Your task to perform on an android device: toggle improve location accuracy Image 0: 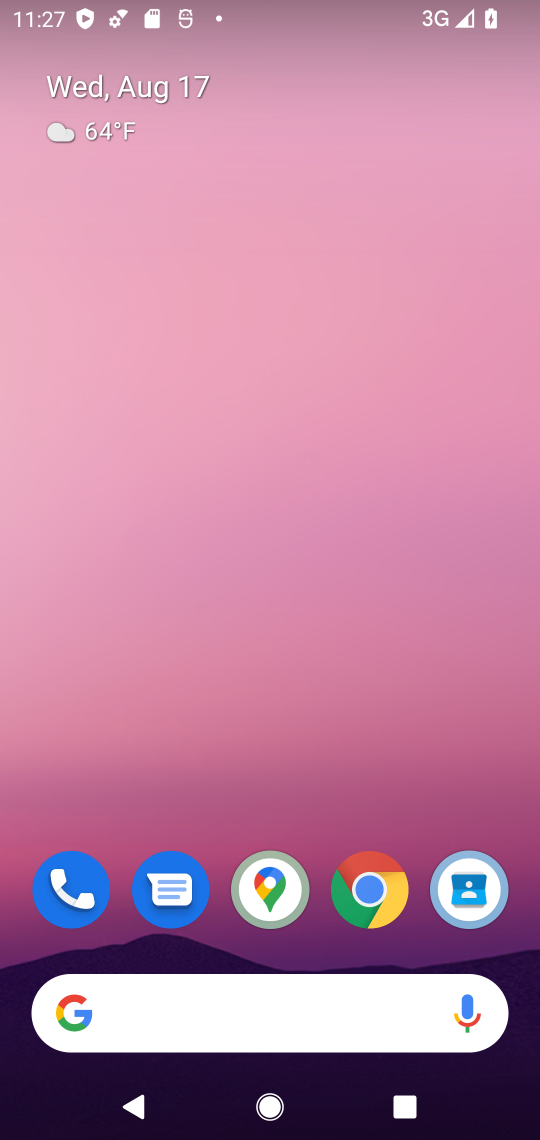
Step 0: drag from (272, 765) to (331, 0)
Your task to perform on an android device: toggle improve location accuracy Image 1: 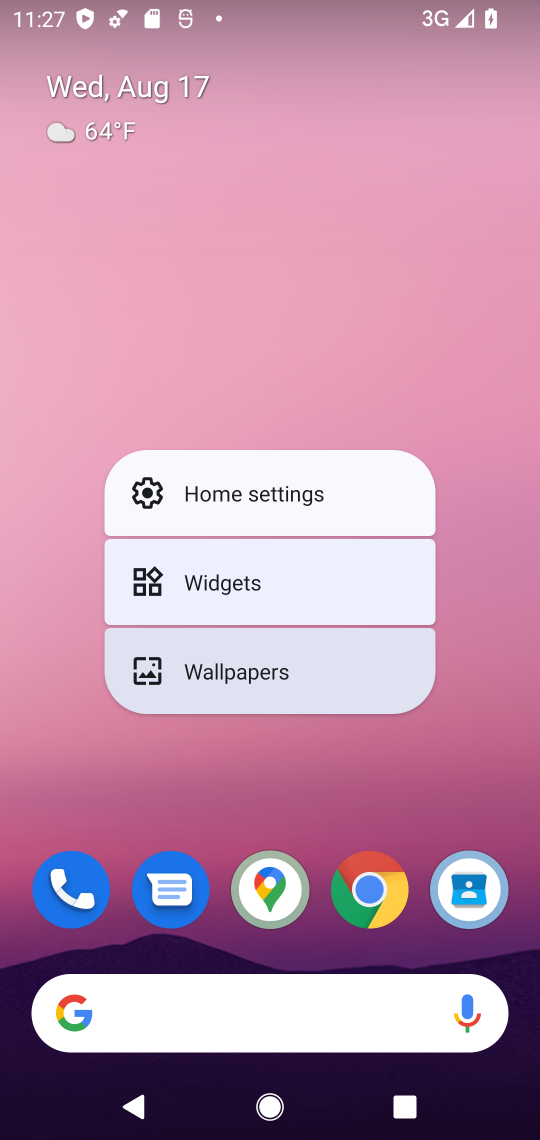
Step 1: click (395, 226)
Your task to perform on an android device: toggle improve location accuracy Image 2: 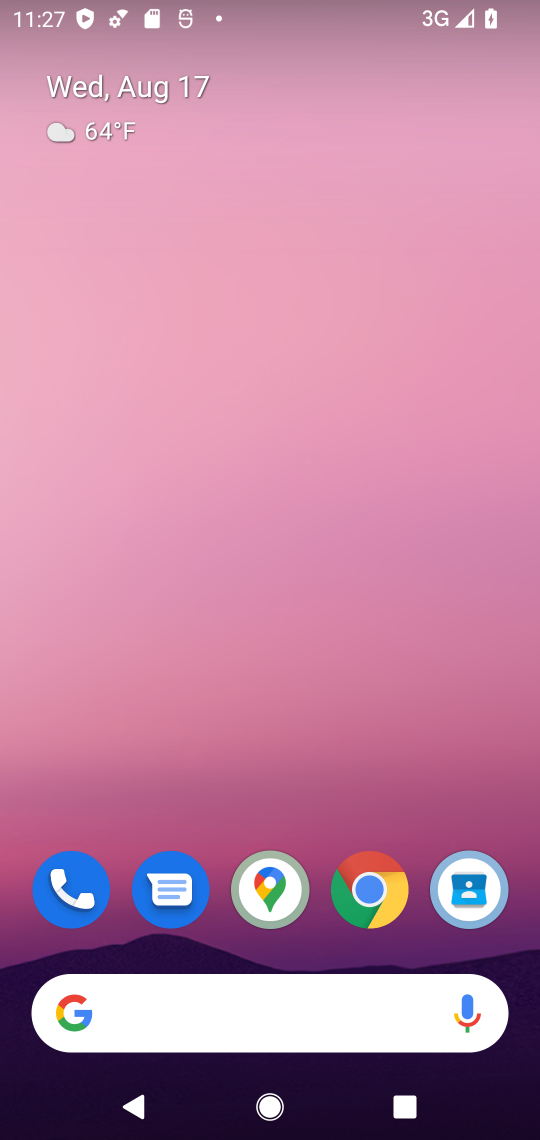
Step 2: drag from (310, 753) to (321, 13)
Your task to perform on an android device: toggle improve location accuracy Image 3: 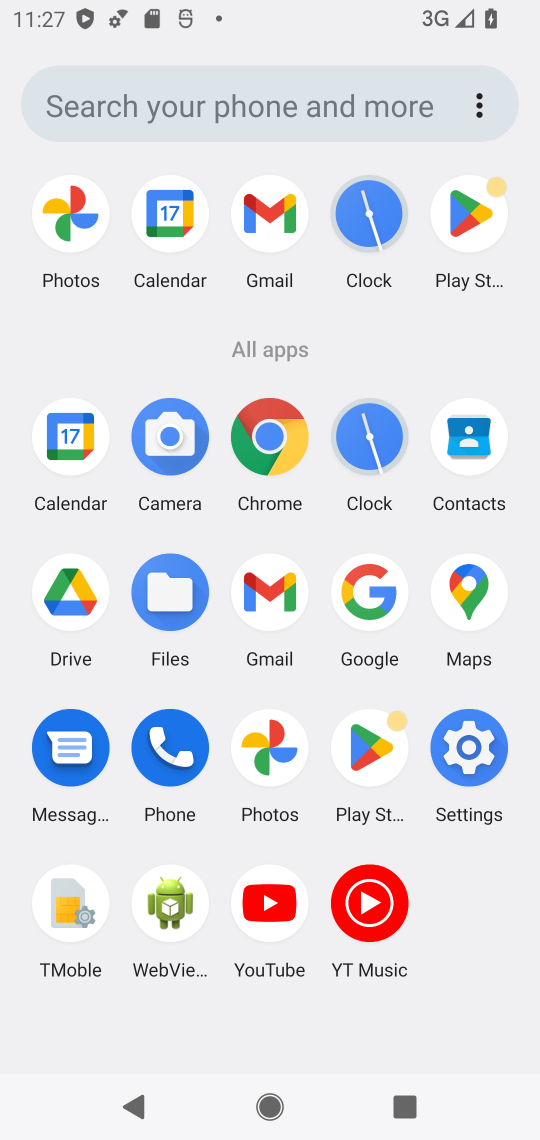
Step 3: click (475, 735)
Your task to perform on an android device: toggle improve location accuracy Image 4: 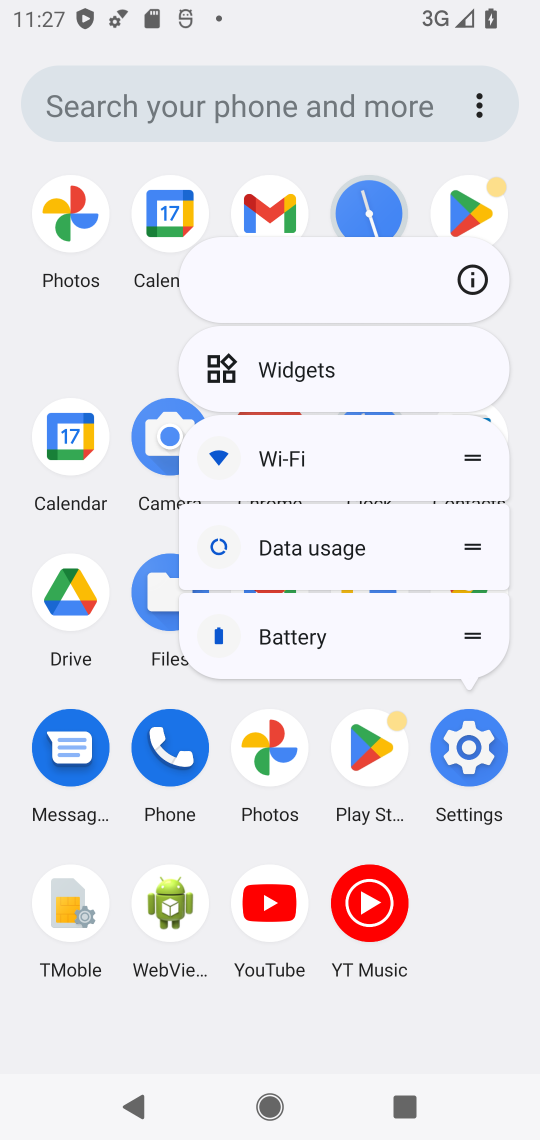
Step 4: click (466, 752)
Your task to perform on an android device: toggle improve location accuracy Image 5: 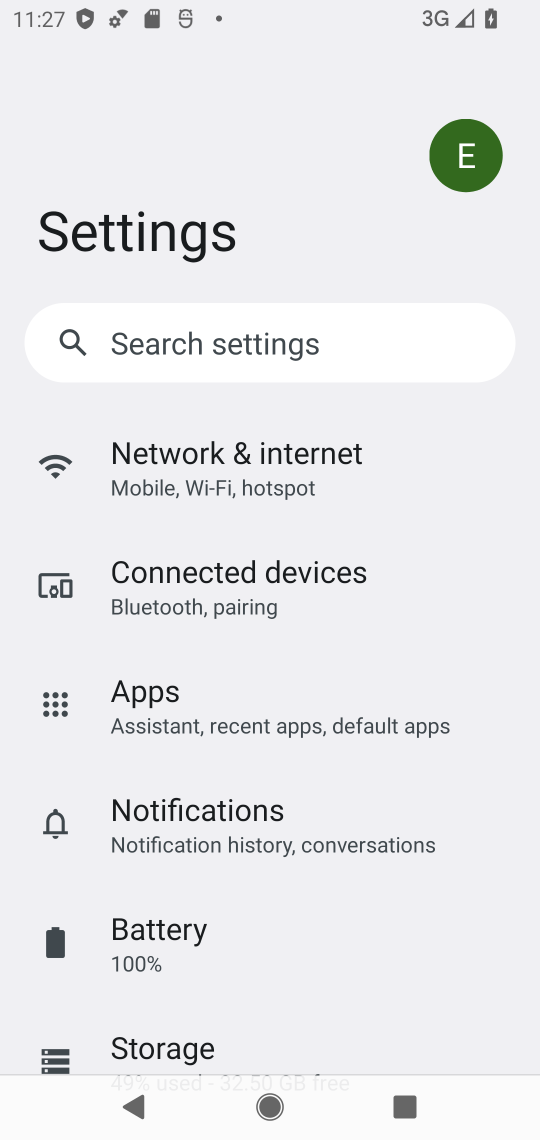
Step 5: drag from (264, 953) to (284, 1)
Your task to perform on an android device: toggle improve location accuracy Image 6: 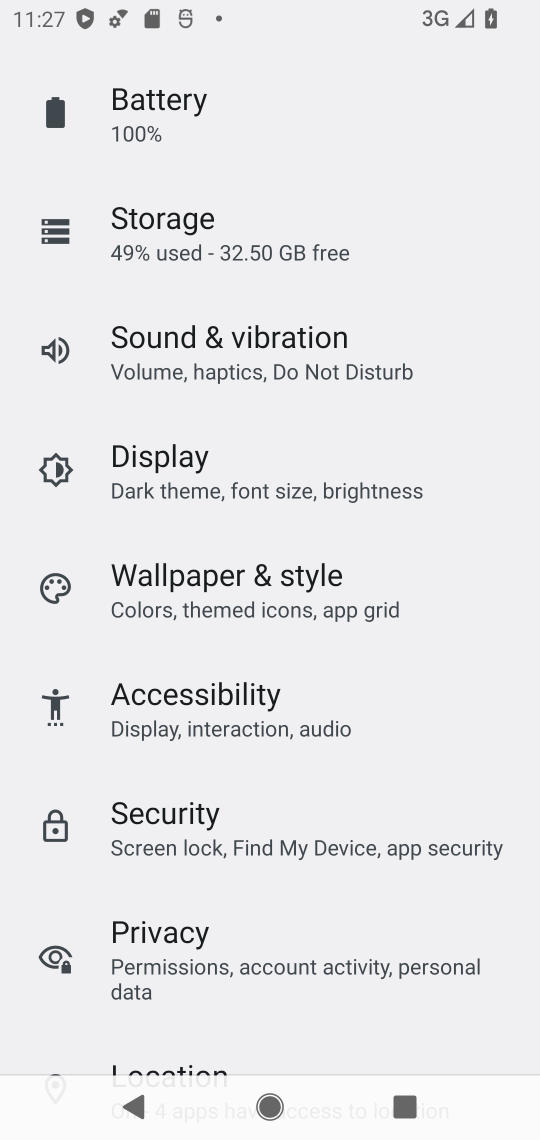
Step 6: drag from (251, 889) to (281, 129)
Your task to perform on an android device: toggle improve location accuracy Image 7: 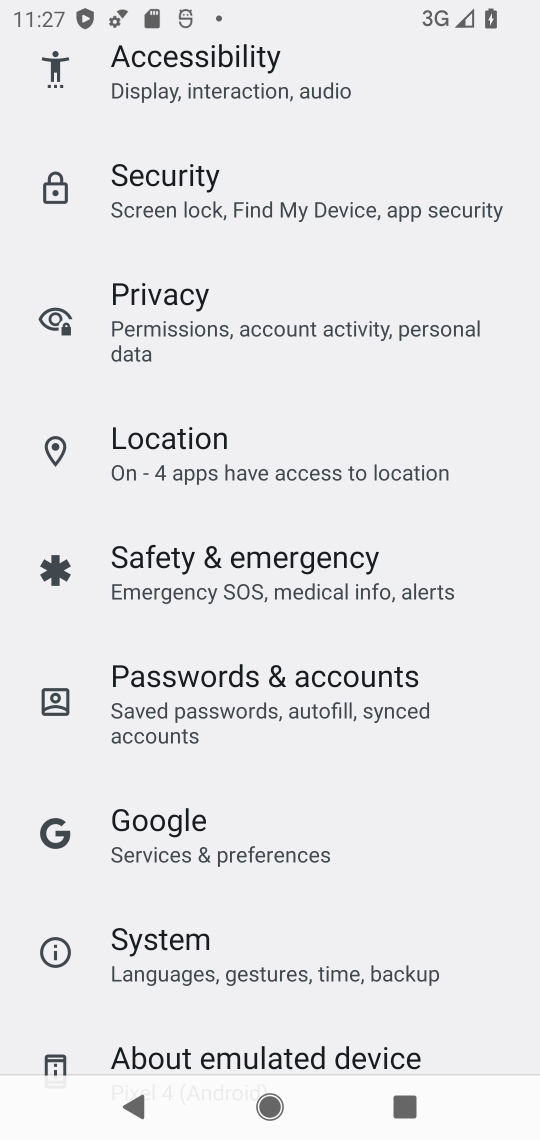
Step 7: click (321, 470)
Your task to perform on an android device: toggle improve location accuracy Image 8: 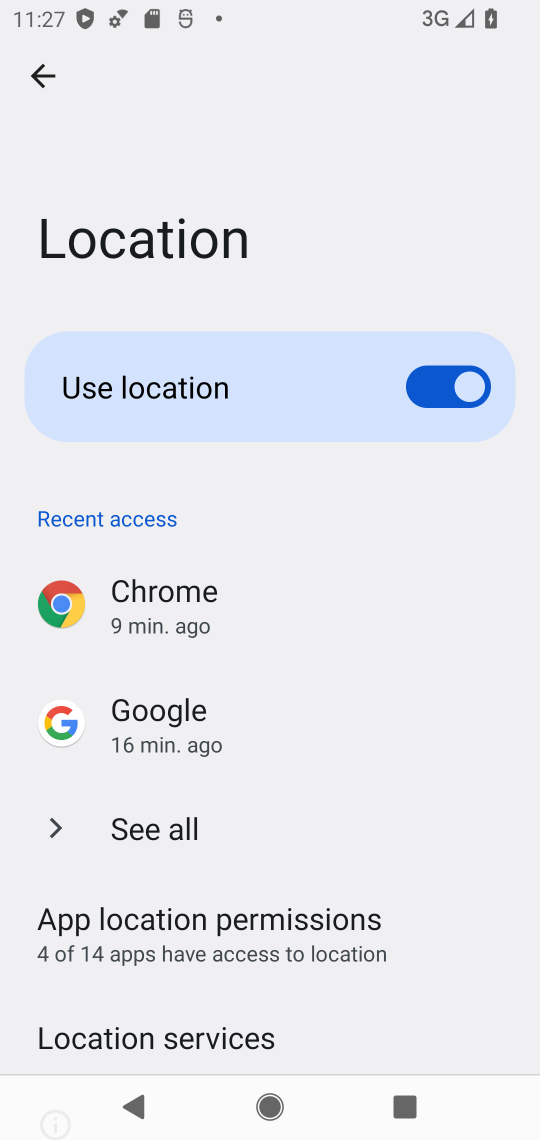
Step 8: drag from (276, 819) to (294, 276)
Your task to perform on an android device: toggle improve location accuracy Image 9: 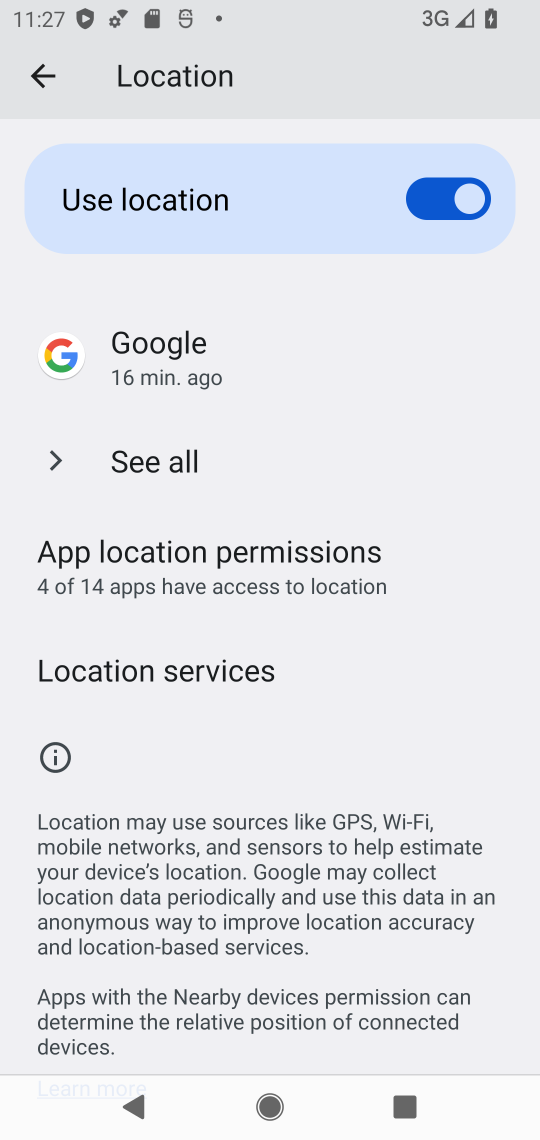
Step 9: click (270, 674)
Your task to perform on an android device: toggle improve location accuracy Image 10: 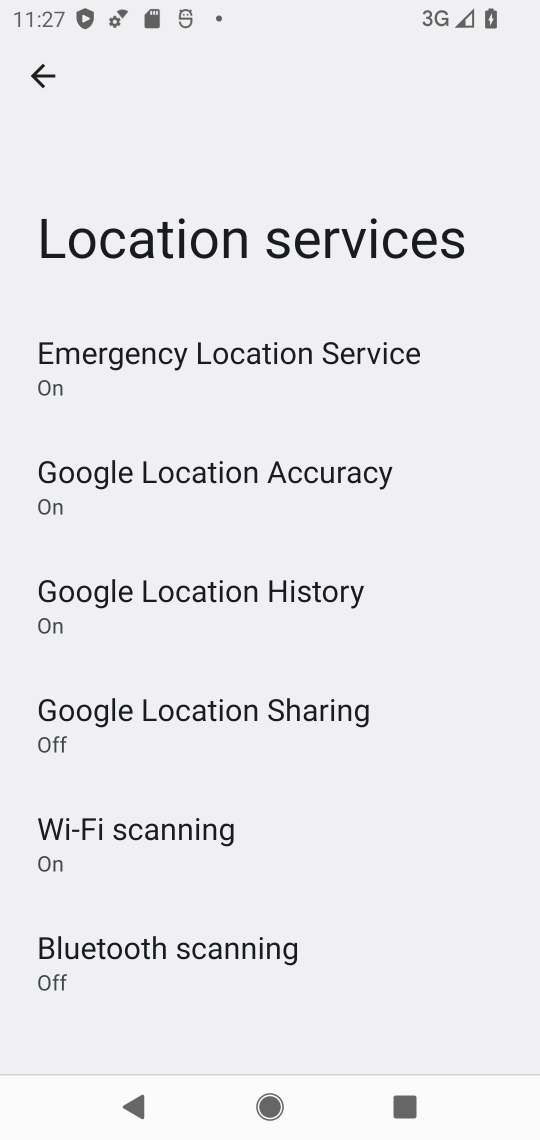
Step 10: click (301, 491)
Your task to perform on an android device: toggle improve location accuracy Image 11: 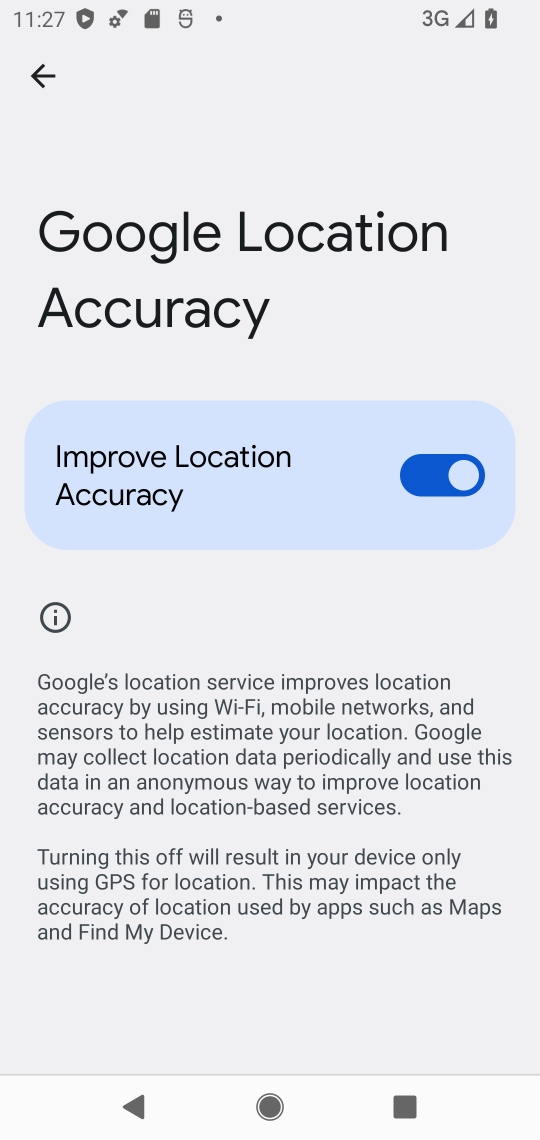
Step 11: click (436, 470)
Your task to perform on an android device: toggle improve location accuracy Image 12: 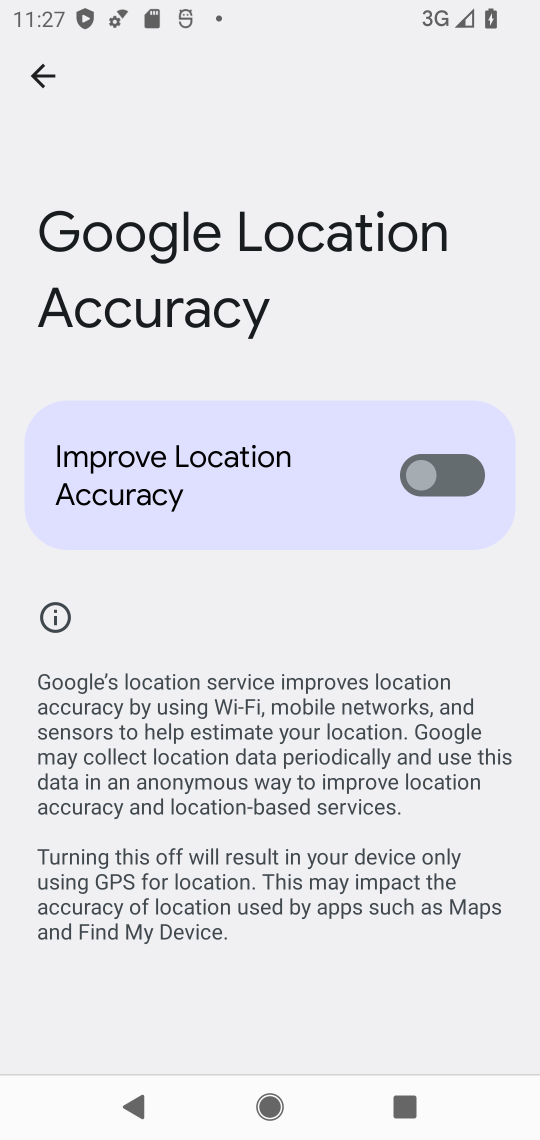
Step 12: task complete